Your task to perform on an android device: turn off location history Image 0: 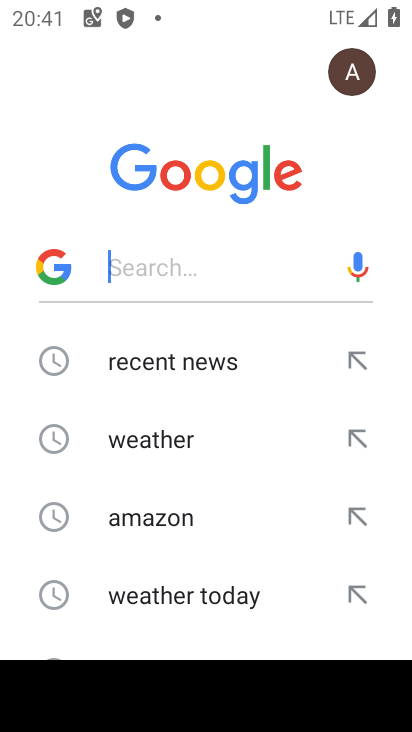
Step 0: press home button
Your task to perform on an android device: turn off location history Image 1: 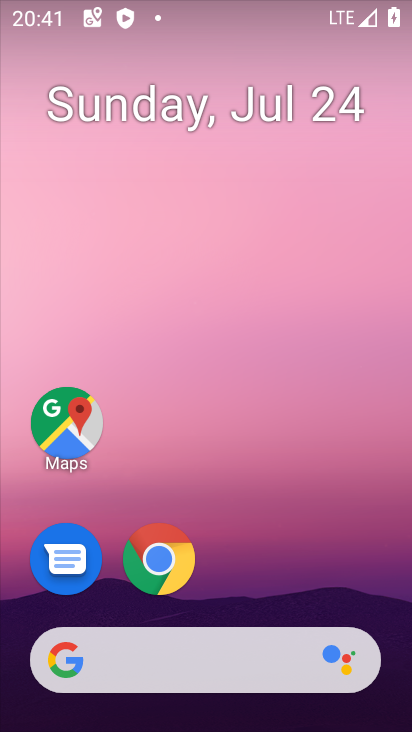
Step 1: drag from (342, 543) to (347, 65)
Your task to perform on an android device: turn off location history Image 2: 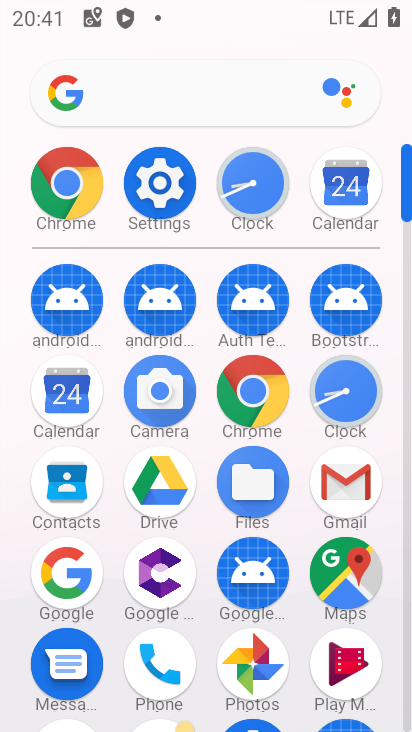
Step 2: click (163, 189)
Your task to perform on an android device: turn off location history Image 3: 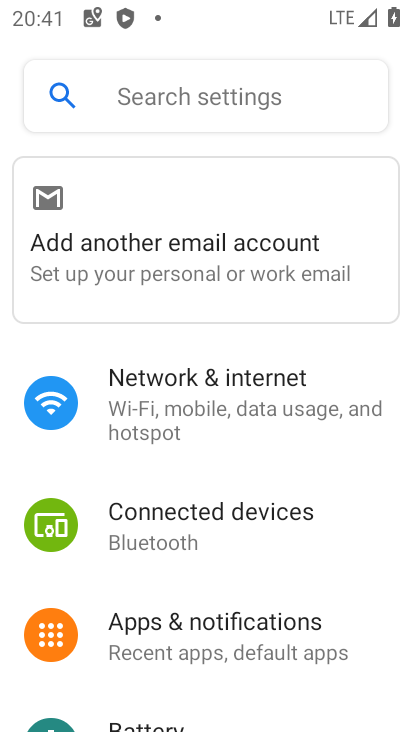
Step 3: drag from (363, 509) to (358, 423)
Your task to perform on an android device: turn off location history Image 4: 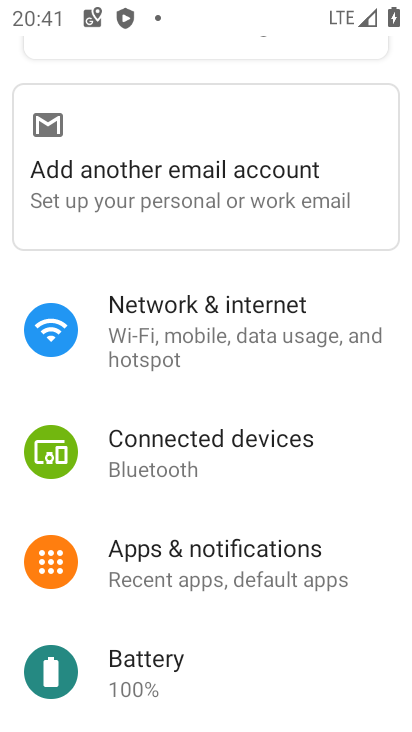
Step 4: drag from (379, 552) to (367, 469)
Your task to perform on an android device: turn off location history Image 5: 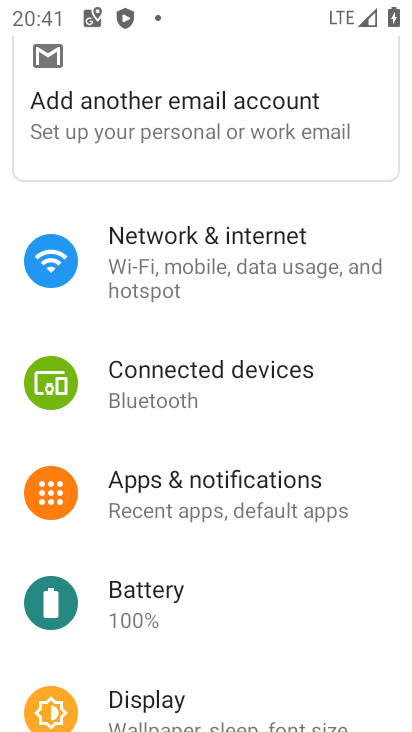
Step 5: drag from (372, 563) to (371, 486)
Your task to perform on an android device: turn off location history Image 6: 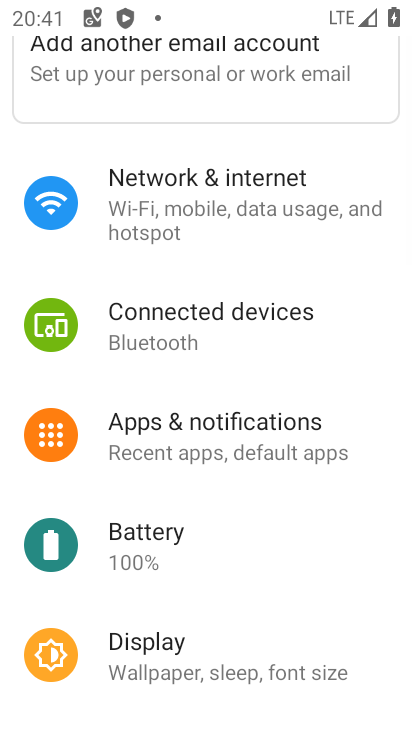
Step 6: drag from (356, 595) to (356, 501)
Your task to perform on an android device: turn off location history Image 7: 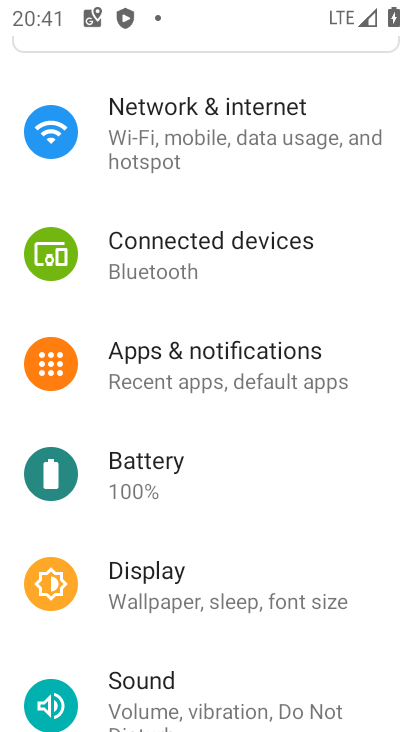
Step 7: drag from (370, 536) to (369, 434)
Your task to perform on an android device: turn off location history Image 8: 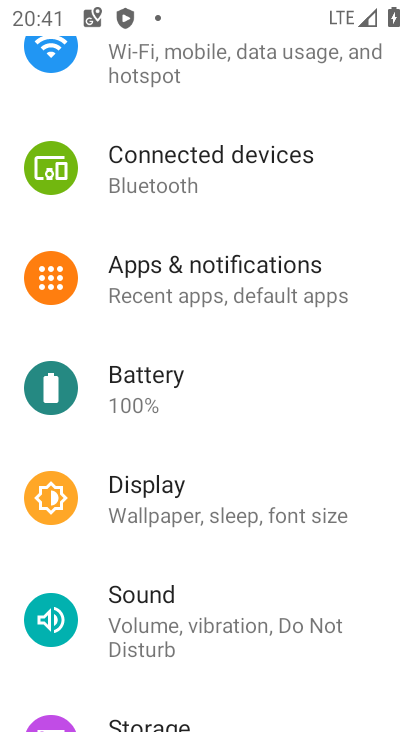
Step 8: drag from (375, 628) to (376, 482)
Your task to perform on an android device: turn off location history Image 9: 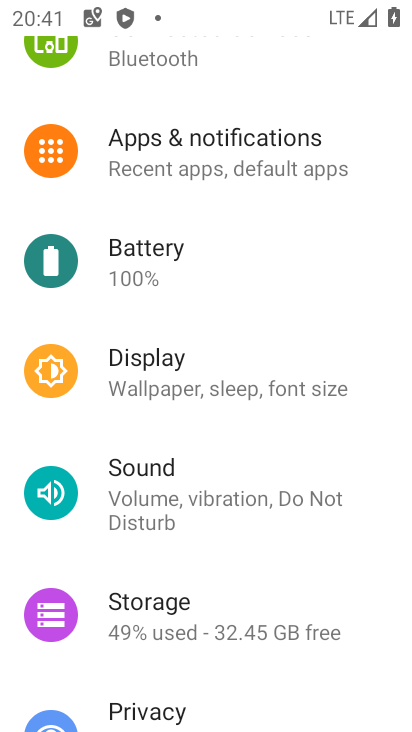
Step 9: drag from (376, 605) to (378, 491)
Your task to perform on an android device: turn off location history Image 10: 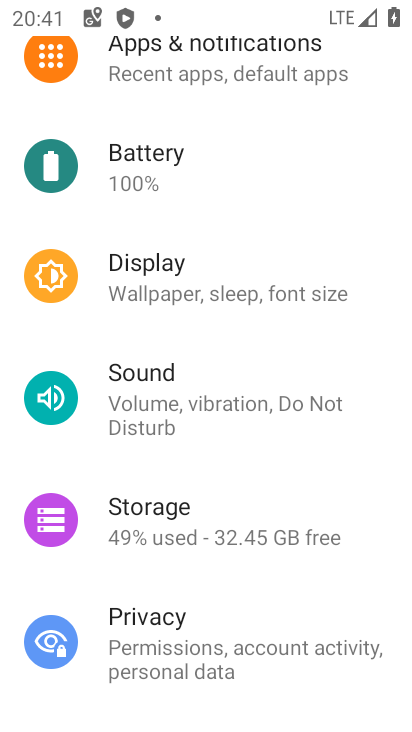
Step 10: drag from (372, 617) to (370, 508)
Your task to perform on an android device: turn off location history Image 11: 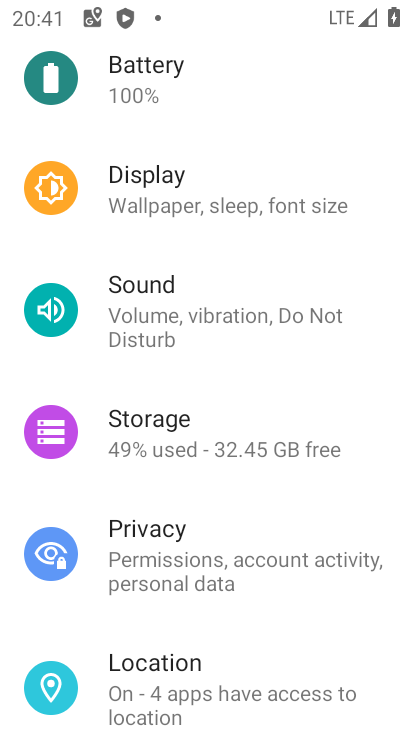
Step 11: drag from (369, 644) to (368, 511)
Your task to perform on an android device: turn off location history Image 12: 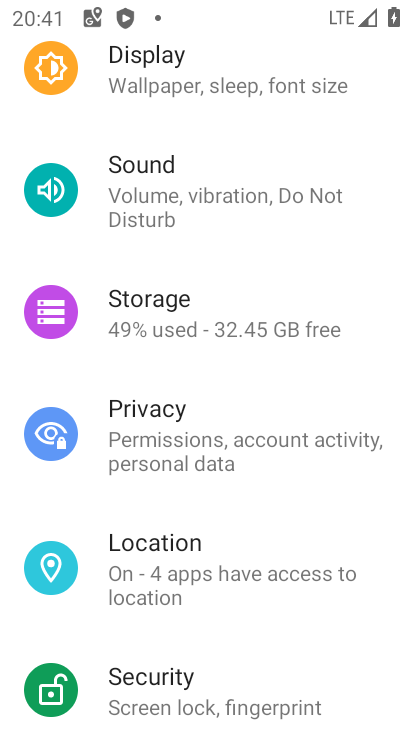
Step 12: drag from (378, 637) to (380, 473)
Your task to perform on an android device: turn off location history Image 13: 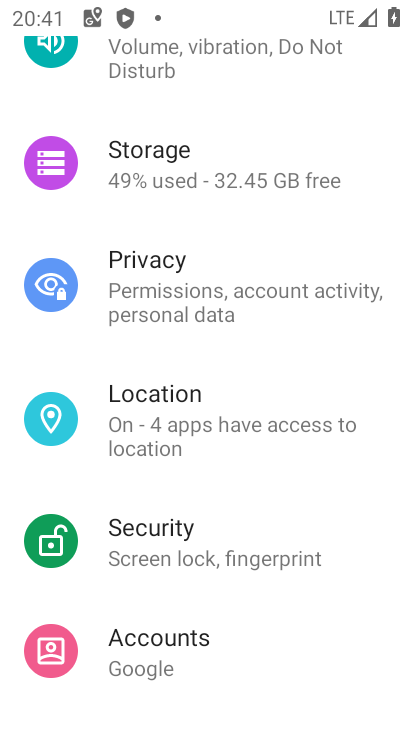
Step 13: click (294, 443)
Your task to perform on an android device: turn off location history Image 14: 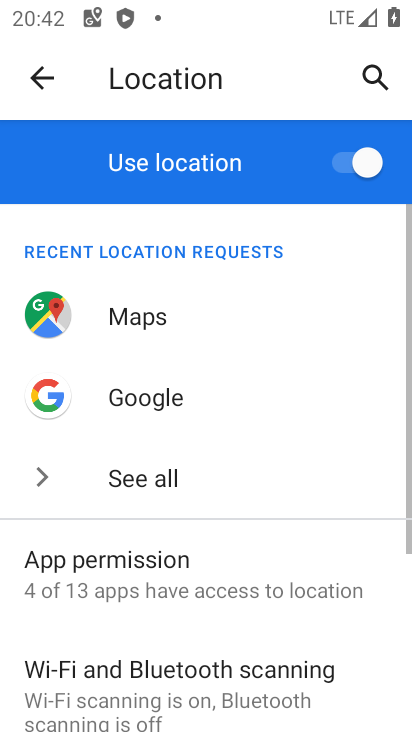
Step 14: drag from (354, 561) to (359, 471)
Your task to perform on an android device: turn off location history Image 15: 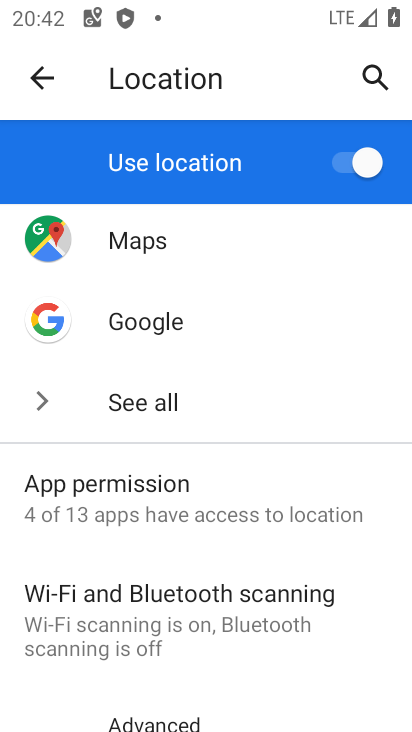
Step 15: drag from (370, 615) to (370, 509)
Your task to perform on an android device: turn off location history Image 16: 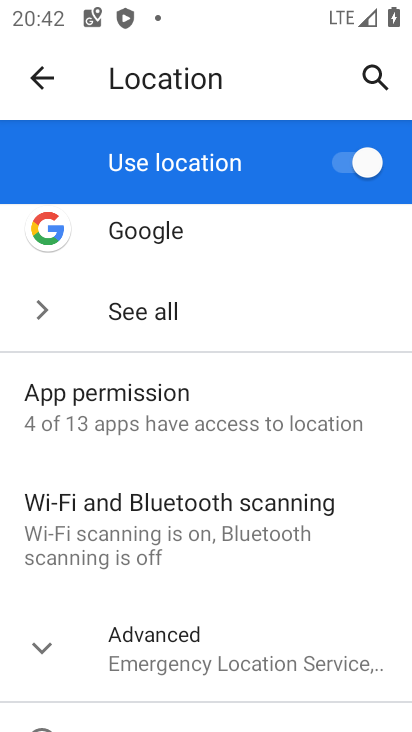
Step 16: drag from (356, 581) to (356, 423)
Your task to perform on an android device: turn off location history Image 17: 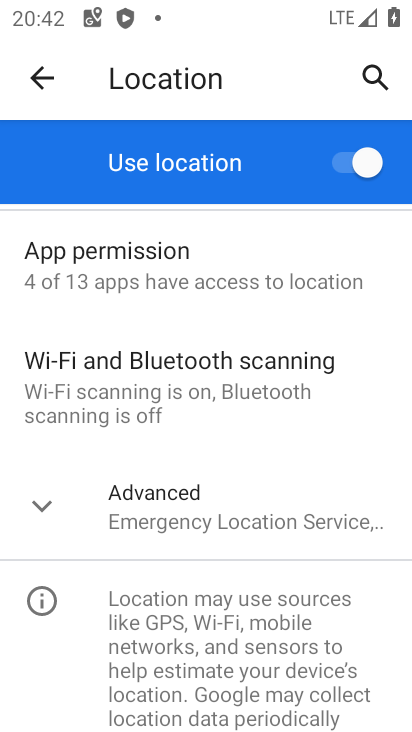
Step 17: click (340, 493)
Your task to perform on an android device: turn off location history Image 18: 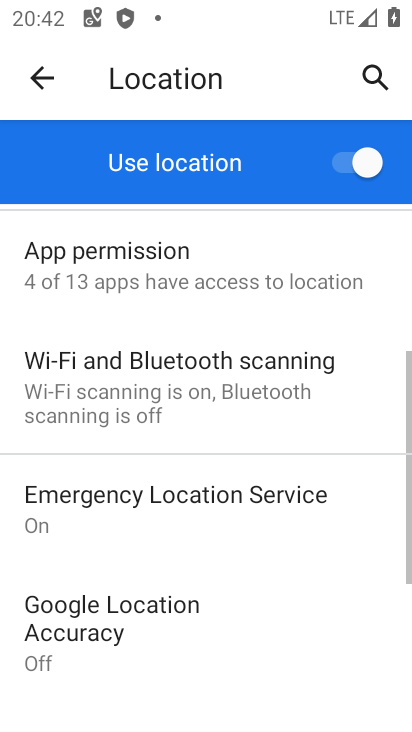
Step 18: drag from (353, 607) to (351, 501)
Your task to perform on an android device: turn off location history Image 19: 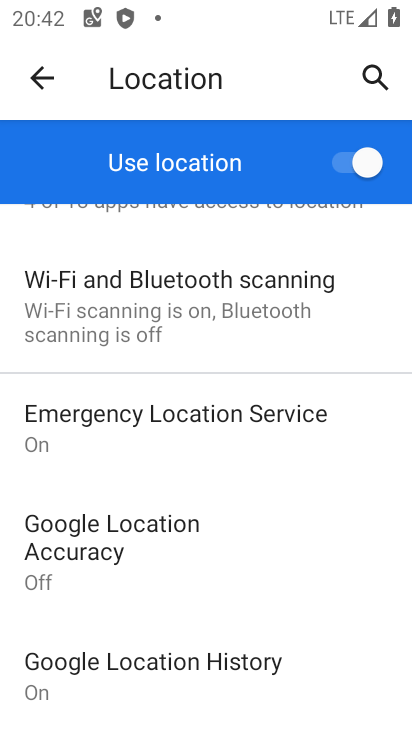
Step 19: drag from (352, 606) to (343, 412)
Your task to perform on an android device: turn off location history Image 20: 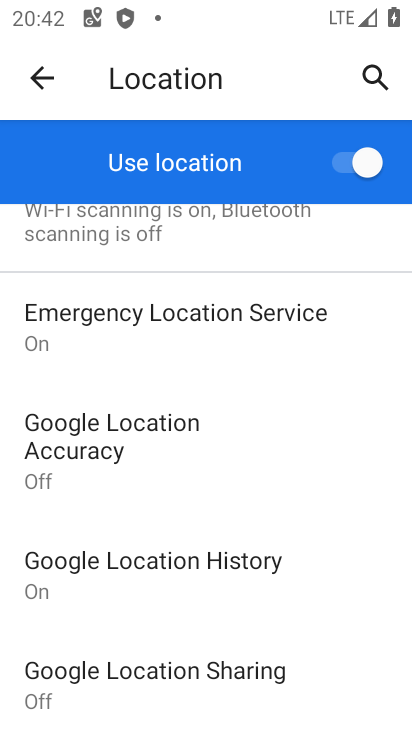
Step 20: drag from (343, 606) to (336, 494)
Your task to perform on an android device: turn off location history Image 21: 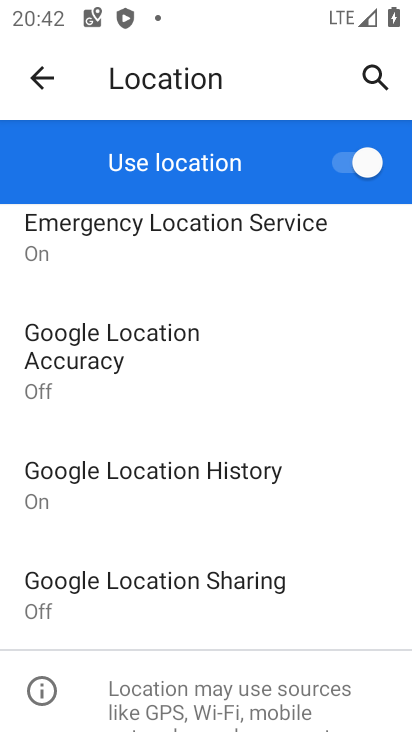
Step 21: click (331, 491)
Your task to perform on an android device: turn off location history Image 22: 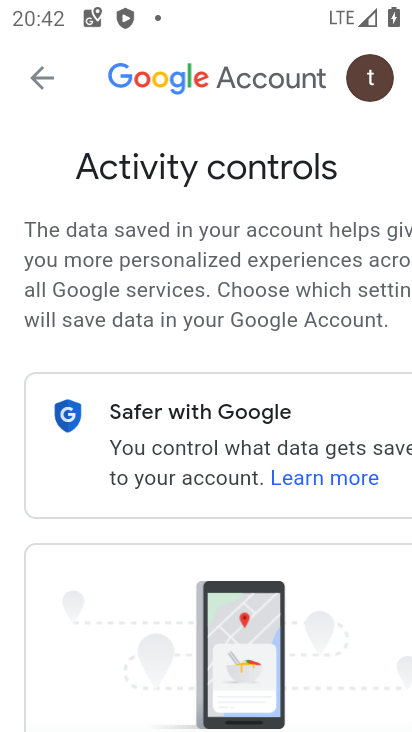
Step 22: drag from (258, 497) to (266, 375)
Your task to perform on an android device: turn off location history Image 23: 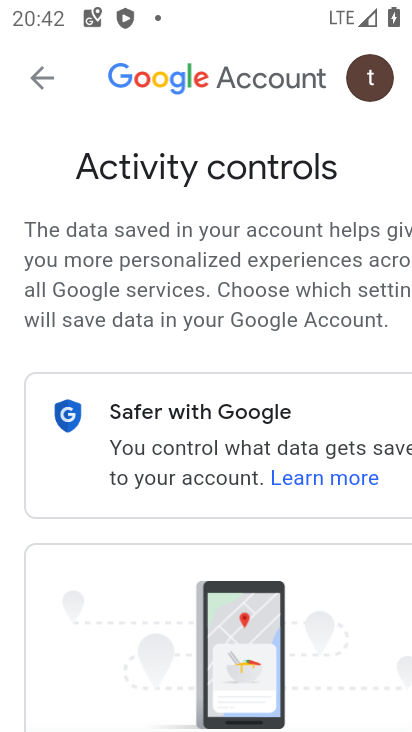
Step 23: drag from (270, 558) to (264, 356)
Your task to perform on an android device: turn off location history Image 24: 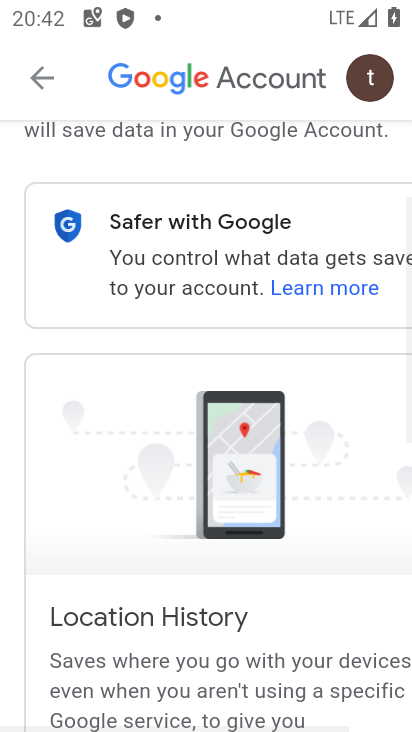
Step 24: drag from (276, 588) to (274, 409)
Your task to perform on an android device: turn off location history Image 25: 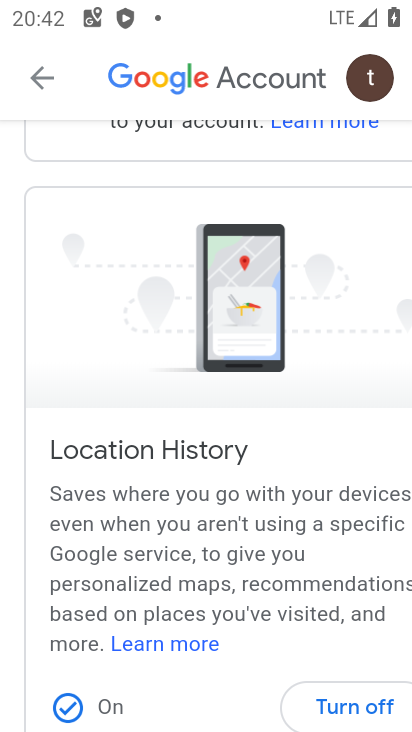
Step 25: drag from (247, 637) to (243, 475)
Your task to perform on an android device: turn off location history Image 26: 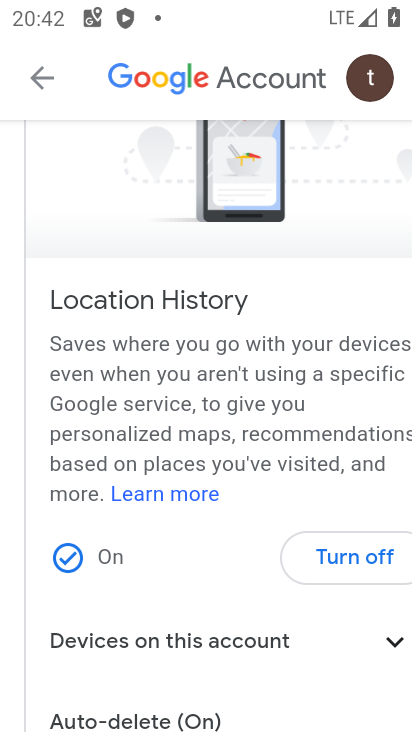
Step 26: click (342, 560)
Your task to perform on an android device: turn off location history Image 27: 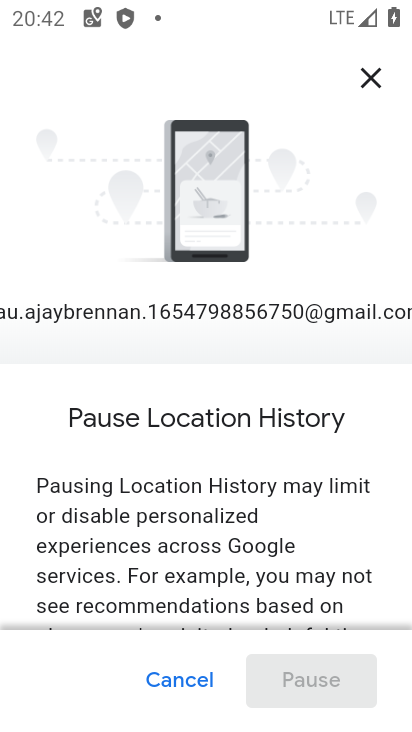
Step 27: drag from (351, 564) to (343, 382)
Your task to perform on an android device: turn off location history Image 28: 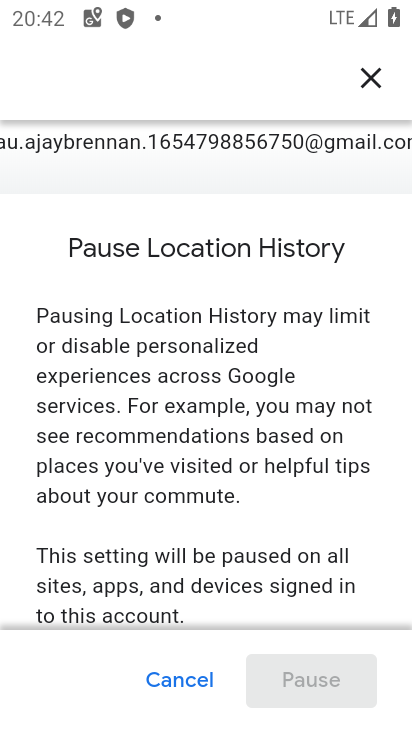
Step 28: drag from (312, 533) to (303, 375)
Your task to perform on an android device: turn off location history Image 29: 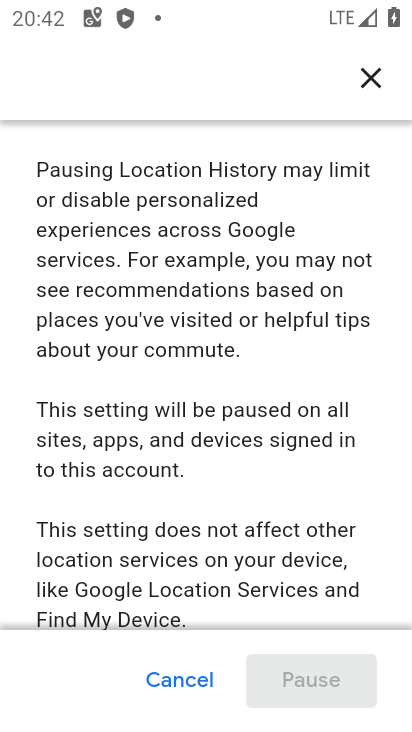
Step 29: drag from (276, 529) to (255, 294)
Your task to perform on an android device: turn off location history Image 30: 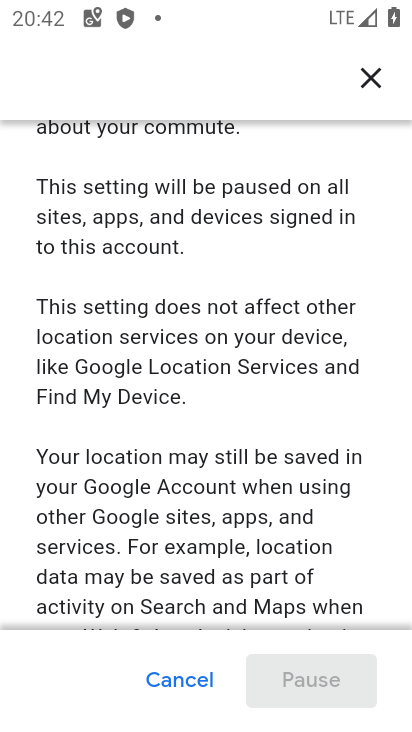
Step 30: drag from (256, 515) to (260, 290)
Your task to perform on an android device: turn off location history Image 31: 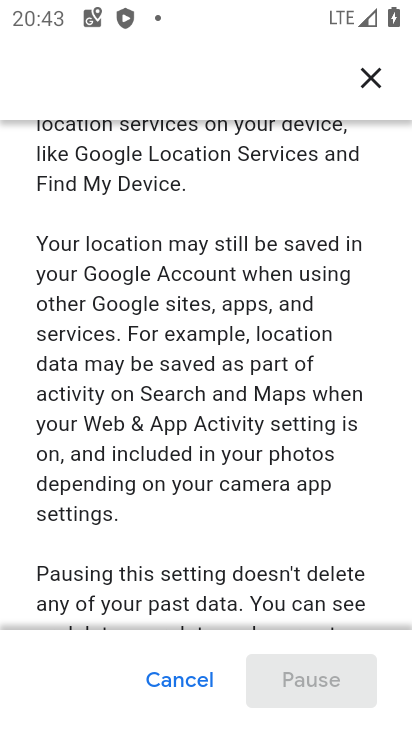
Step 31: drag from (262, 520) to (262, 311)
Your task to perform on an android device: turn off location history Image 32: 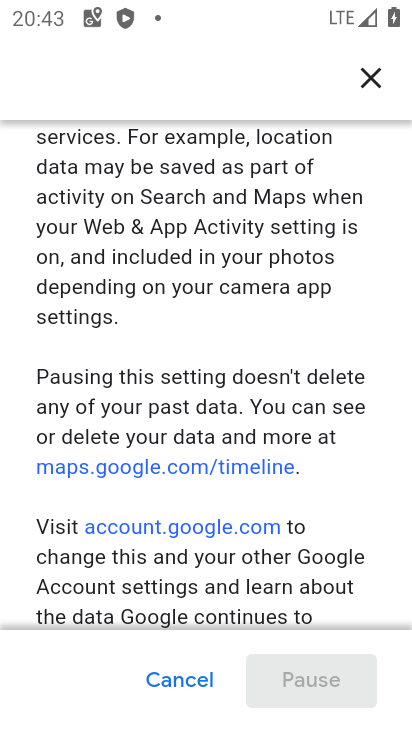
Step 32: drag from (255, 574) to (258, 359)
Your task to perform on an android device: turn off location history Image 33: 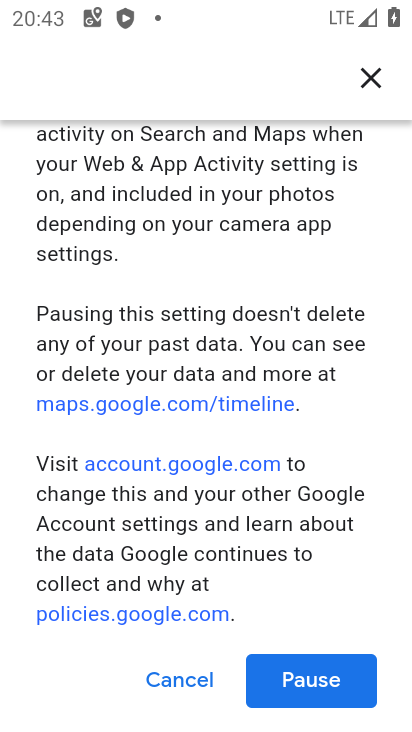
Step 33: click (302, 680)
Your task to perform on an android device: turn off location history Image 34: 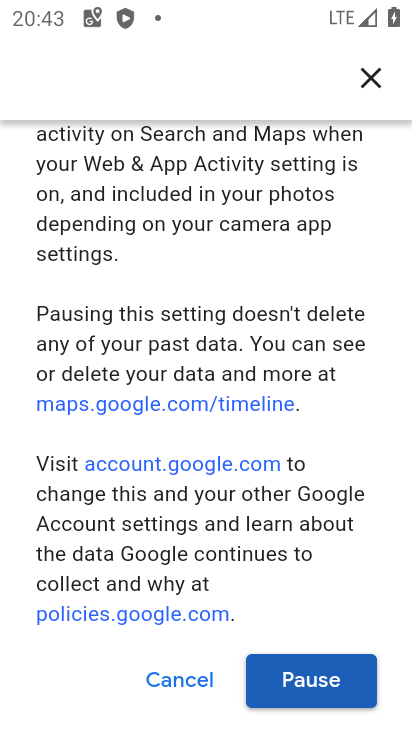
Step 34: click (317, 675)
Your task to perform on an android device: turn off location history Image 35: 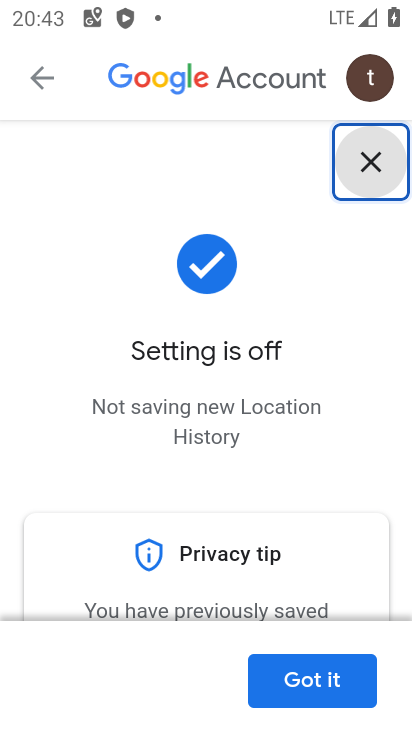
Step 35: task complete